Your task to perform on an android device: add a contact in the contacts app Image 0: 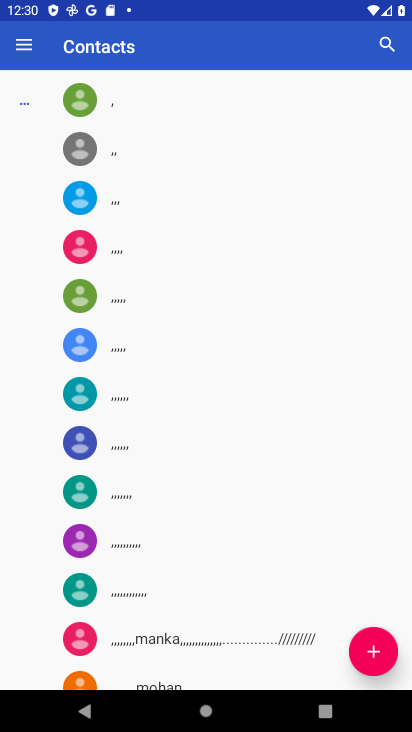
Step 0: press home button
Your task to perform on an android device: add a contact in the contacts app Image 1: 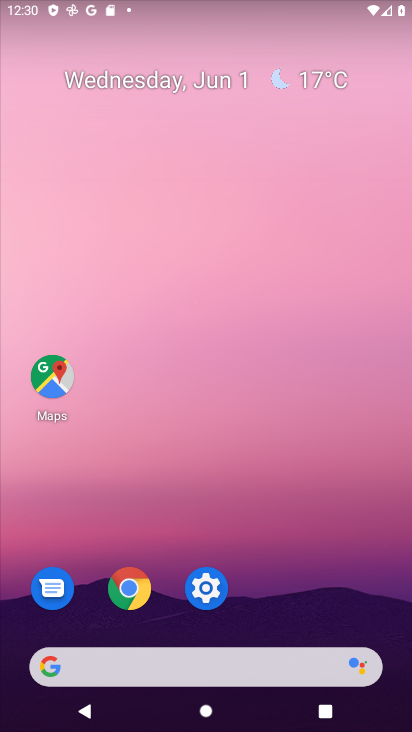
Step 1: drag from (223, 690) to (152, 229)
Your task to perform on an android device: add a contact in the contacts app Image 2: 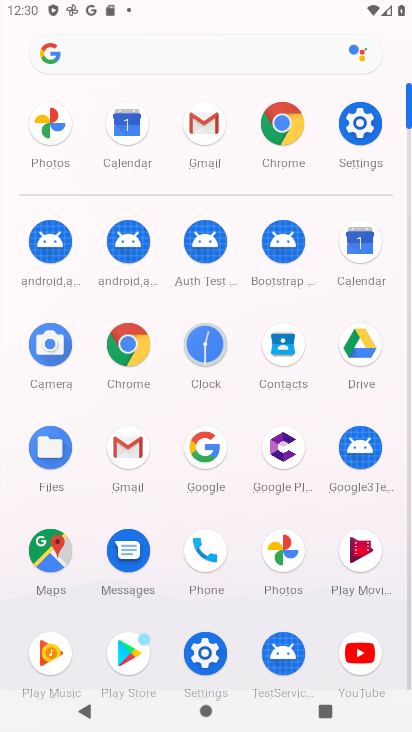
Step 2: click (201, 546)
Your task to perform on an android device: add a contact in the contacts app Image 3: 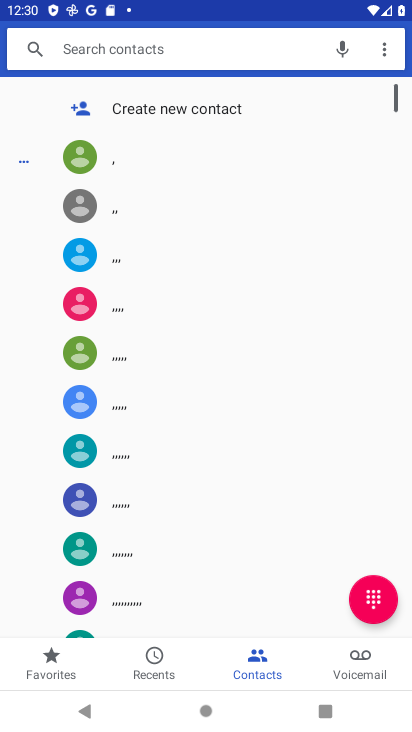
Step 3: click (166, 116)
Your task to perform on an android device: add a contact in the contacts app Image 4: 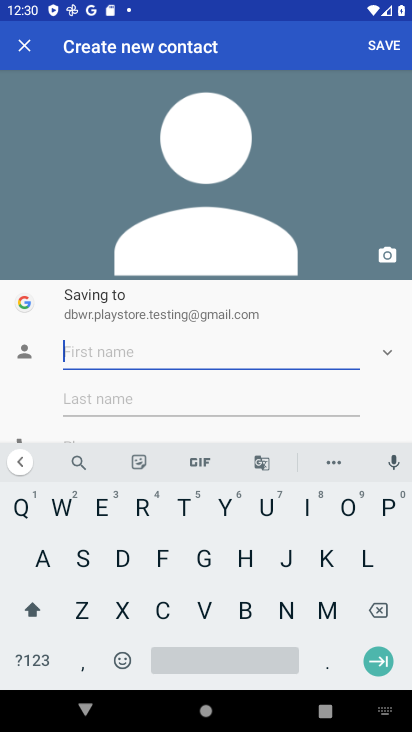
Step 4: click (153, 566)
Your task to perform on an android device: add a contact in the contacts app Image 5: 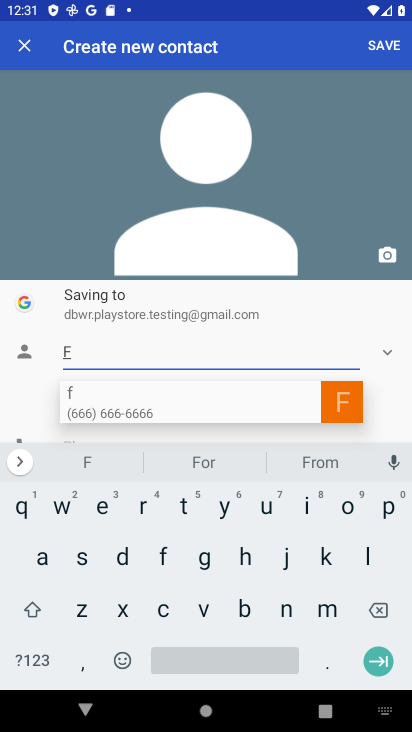
Step 5: click (245, 566)
Your task to perform on an android device: add a contact in the contacts app Image 6: 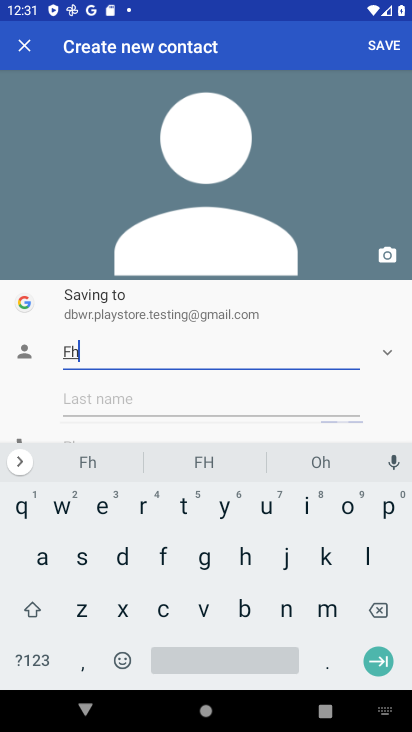
Step 6: click (188, 564)
Your task to perform on an android device: add a contact in the contacts app Image 7: 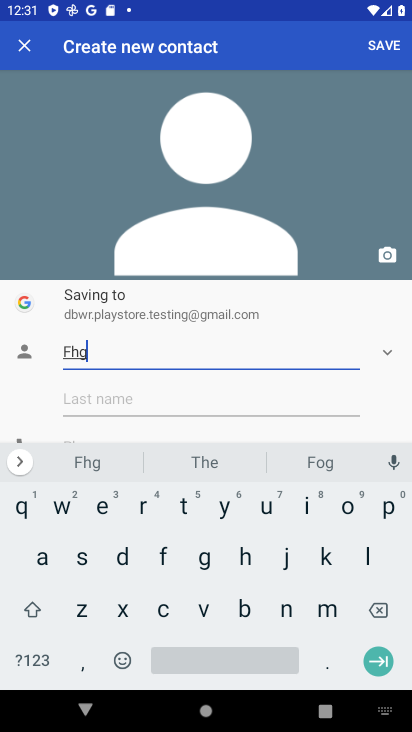
Step 7: drag from (148, 409) to (182, 268)
Your task to perform on an android device: add a contact in the contacts app Image 8: 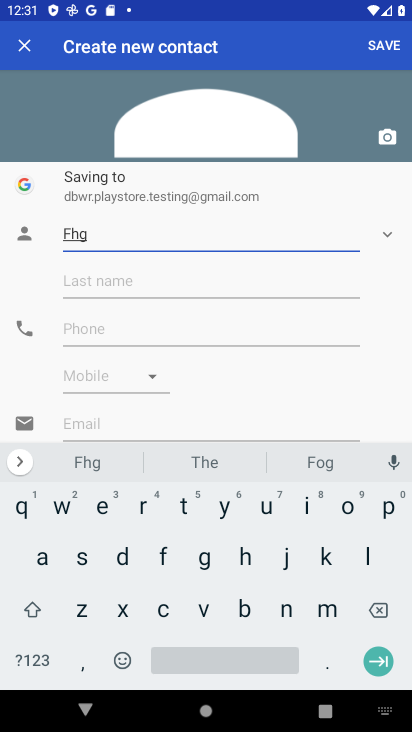
Step 8: click (91, 328)
Your task to perform on an android device: add a contact in the contacts app Image 9: 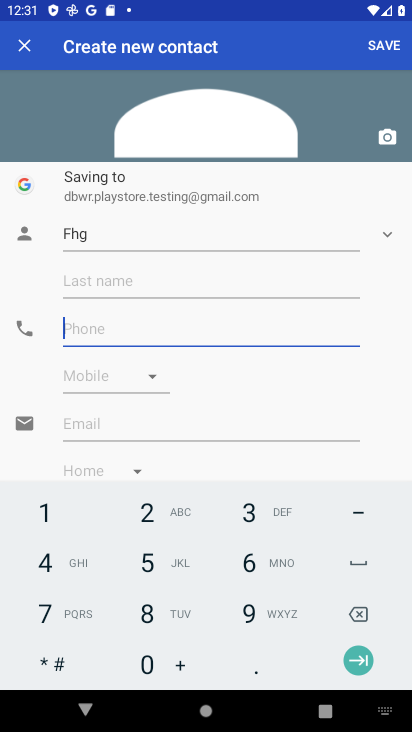
Step 9: click (133, 591)
Your task to perform on an android device: add a contact in the contacts app Image 10: 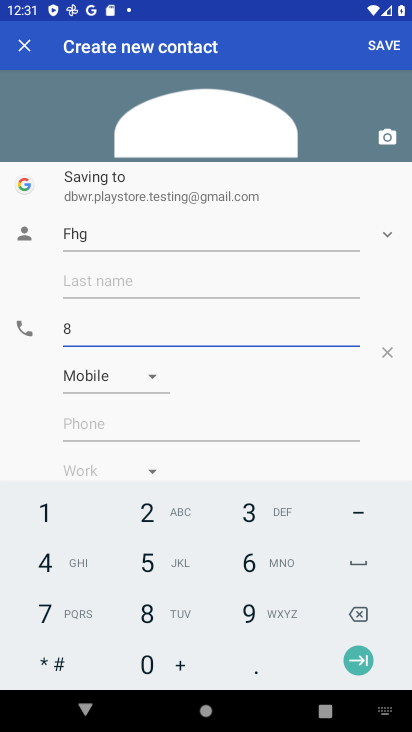
Step 10: click (61, 568)
Your task to perform on an android device: add a contact in the contacts app Image 11: 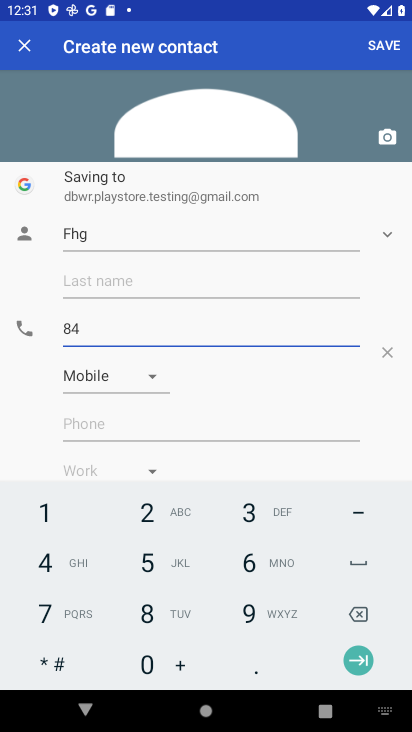
Step 11: click (42, 619)
Your task to perform on an android device: add a contact in the contacts app Image 12: 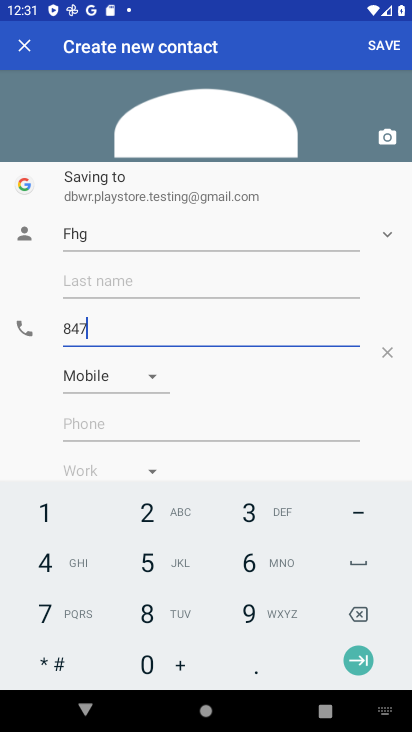
Step 12: click (153, 506)
Your task to perform on an android device: add a contact in the contacts app Image 13: 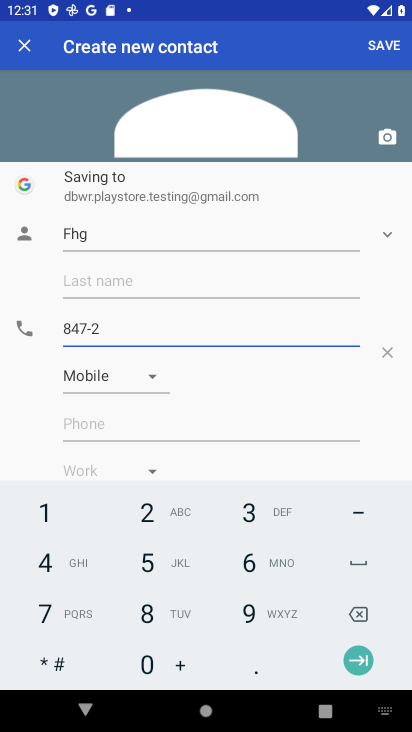
Step 13: click (246, 564)
Your task to perform on an android device: add a contact in the contacts app Image 14: 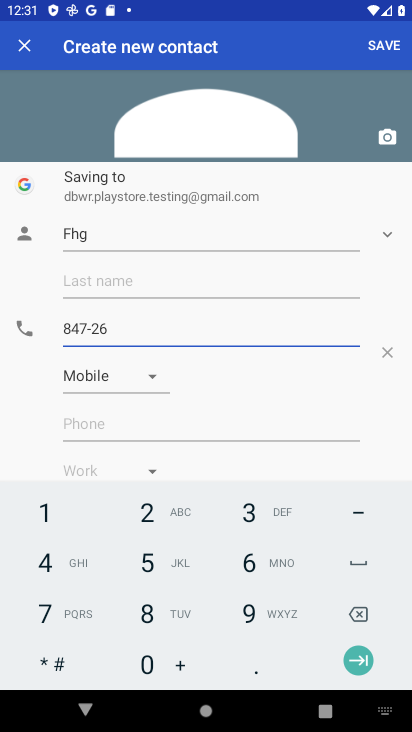
Step 14: click (246, 610)
Your task to perform on an android device: add a contact in the contacts app Image 15: 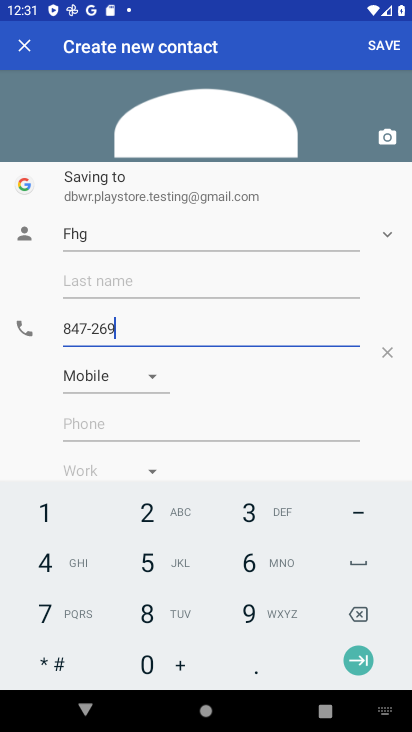
Step 15: click (373, 46)
Your task to perform on an android device: add a contact in the contacts app Image 16: 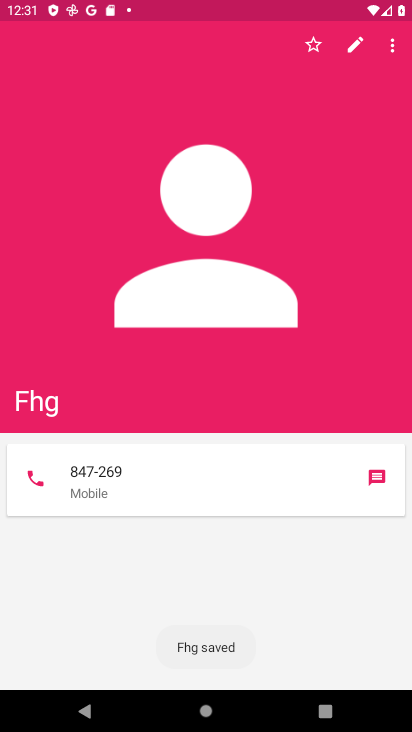
Step 16: task complete